Your task to perform on an android device: change notifications settings Image 0: 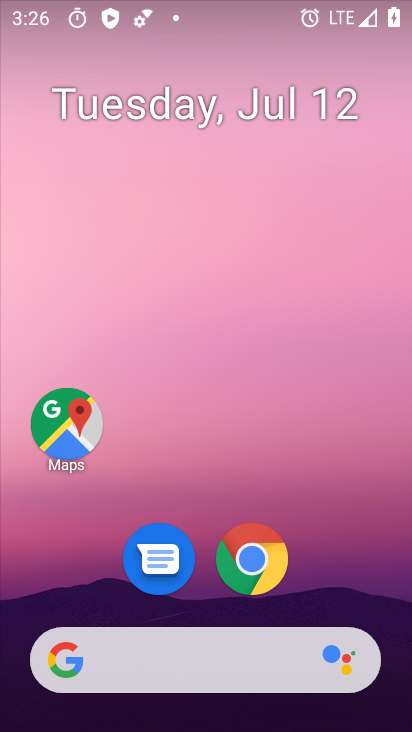
Step 0: drag from (375, 595) to (360, 235)
Your task to perform on an android device: change notifications settings Image 1: 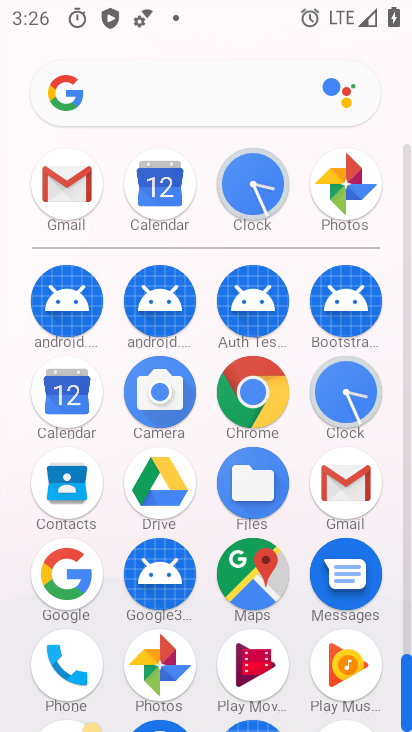
Step 1: drag from (389, 542) to (386, 330)
Your task to perform on an android device: change notifications settings Image 2: 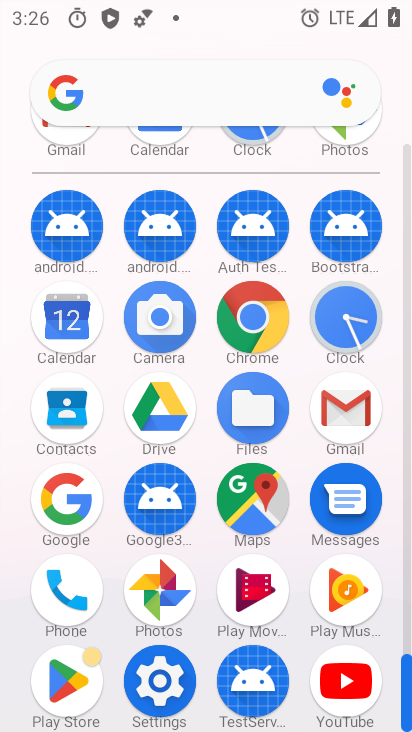
Step 2: click (167, 672)
Your task to perform on an android device: change notifications settings Image 3: 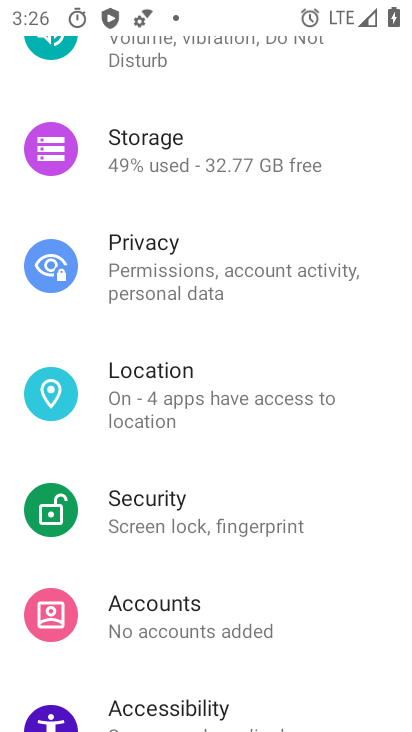
Step 3: drag from (380, 245) to (373, 349)
Your task to perform on an android device: change notifications settings Image 4: 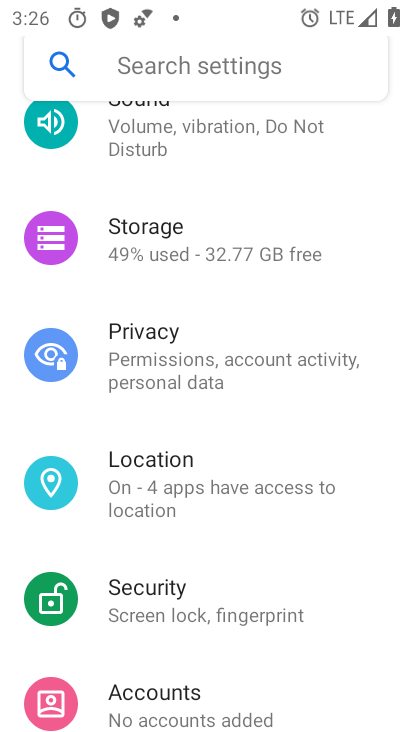
Step 4: drag from (362, 231) to (371, 345)
Your task to perform on an android device: change notifications settings Image 5: 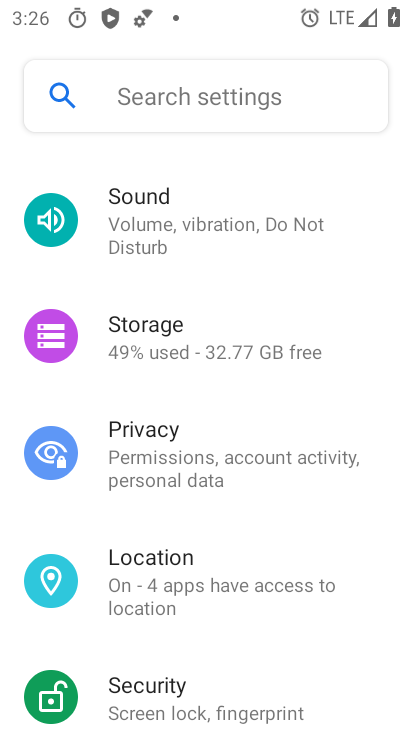
Step 5: drag from (369, 228) to (370, 334)
Your task to perform on an android device: change notifications settings Image 6: 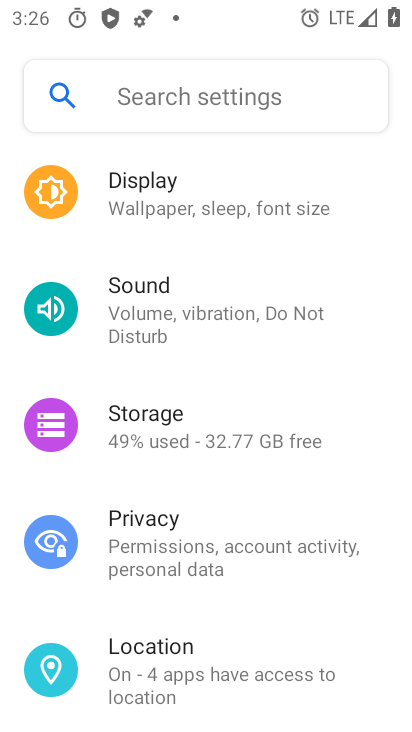
Step 6: drag from (367, 237) to (365, 339)
Your task to perform on an android device: change notifications settings Image 7: 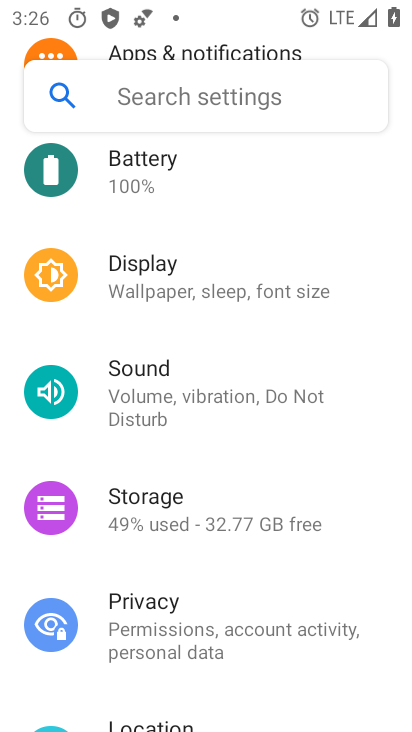
Step 7: drag from (365, 219) to (361, 328)
Your task to perform on an android device: change notifications settings Image 8: 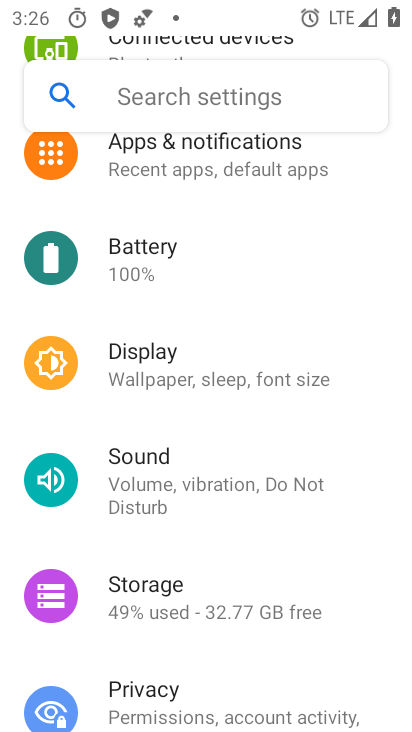
Step 8: drag from (361, 210) to (353, 346)
Your task to perform on an android device: change notifications settings Image 9: 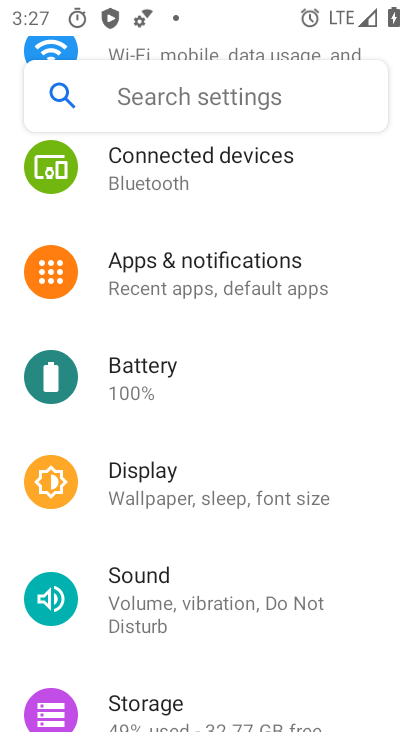
Step 9: drag from (365, 210) to (367, 353)
Your task to perform on an android device: change notifications settings Image 10: 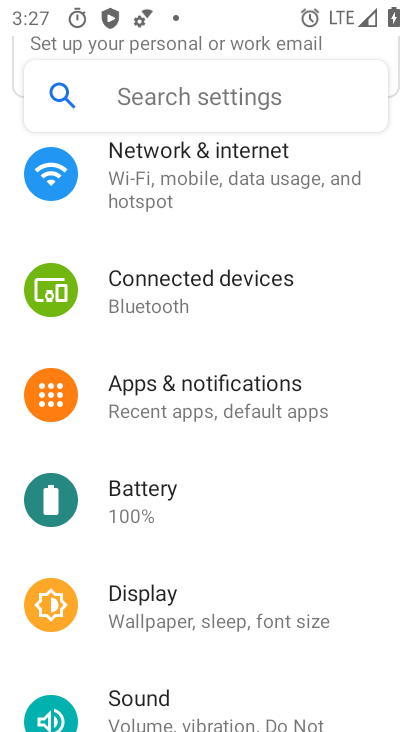
Step 10: click (279, 402)
Your task to perform on an android device: change notifications settings Image 11: 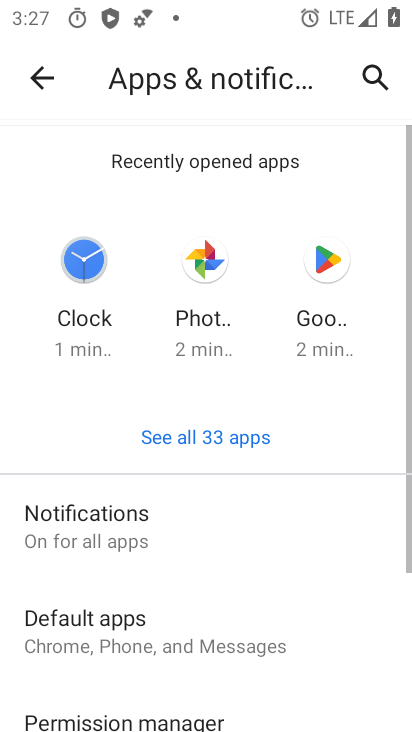
Step 11: drag from (256, 484) to (272, 331)
Your task to perform on an android device: change notifications settings Image 12: 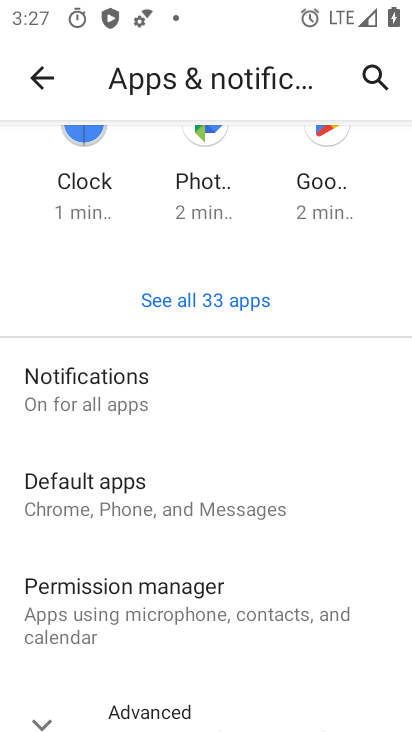
Step 12: click (145, 402)
Your task to perform on an android device: change notifications settings Image 13: 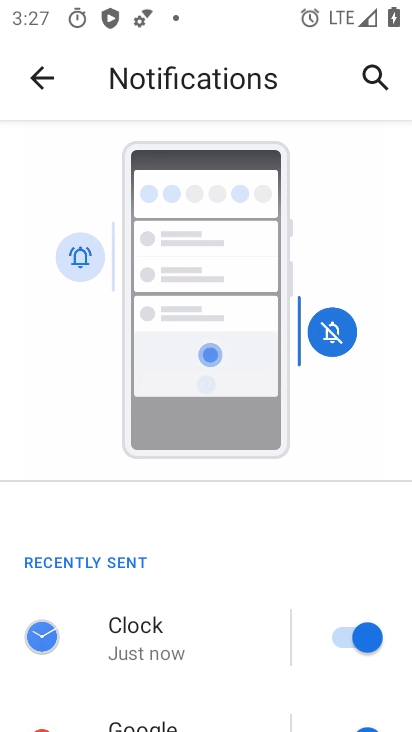
Step 13: drag from (222, 540) to (232, 403)
Your task to perform on an android device: change notifications settings Image 14: 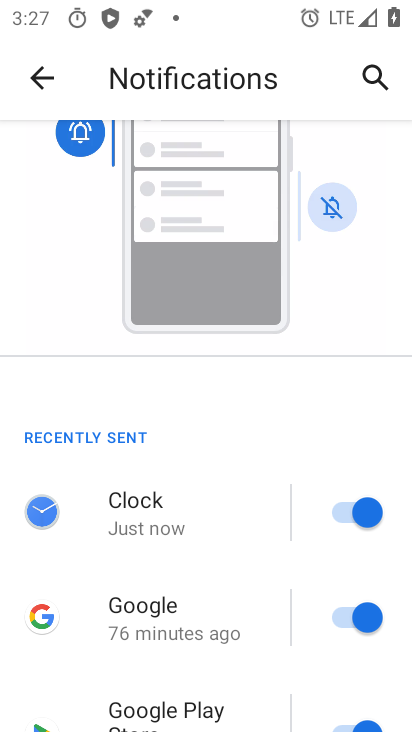
Step 14: drag from (237, 512) to (235, 358)
Your task to perform on an android device: change notifications settings Image 15: 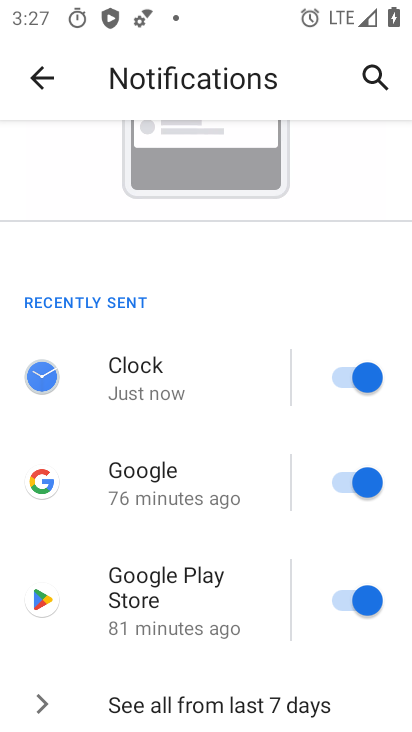
Step 15: drag from (243, 533) to (244, 368)
Your task to perform on an android device: change notifications settings Image 16: 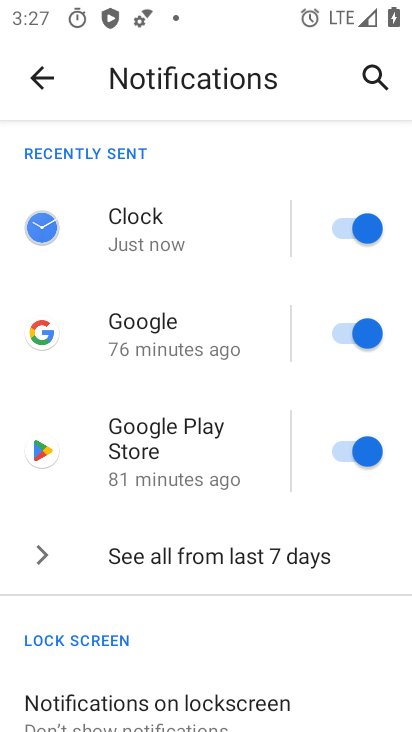
Step 16: drag from (253, 584) to (258, 308)
Your task to perform on an android device: change notifications settings Image 17: 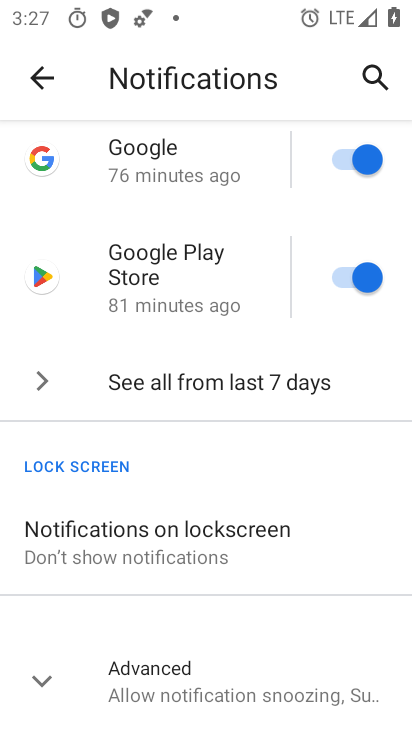
Step 17: drag from (304, 281) to (294, 517)
Your task to perform on an android device: change notifications settings Image 18: 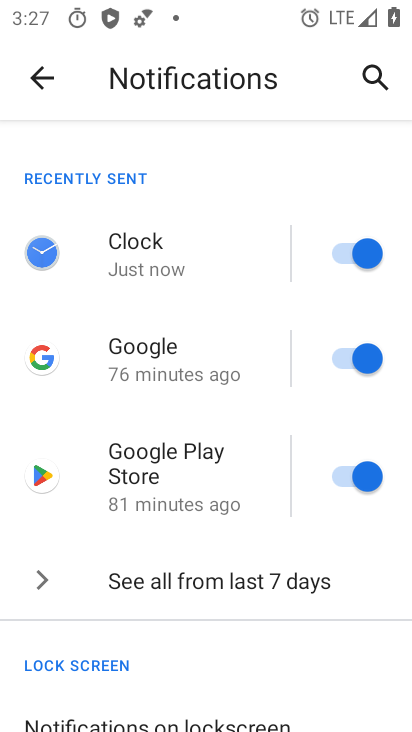
Step 18: click (342, 472)
Your task to perform on an android device: change notifications settings Image 19: 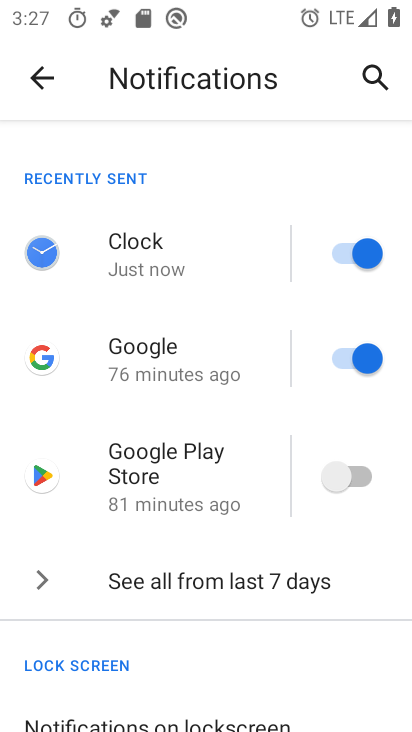
Step 19: click (358, 359)
Your task to perform on an android device: change notifications settings Image 20: 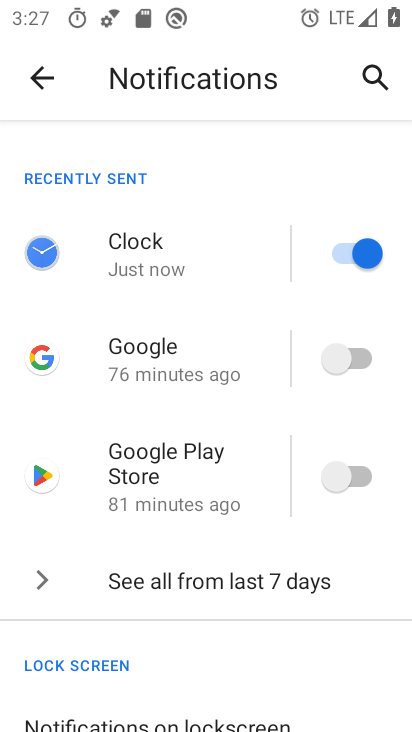
Step 20: click (365, 247)
Your task to perform on an android device: change notifications settings Image 21: 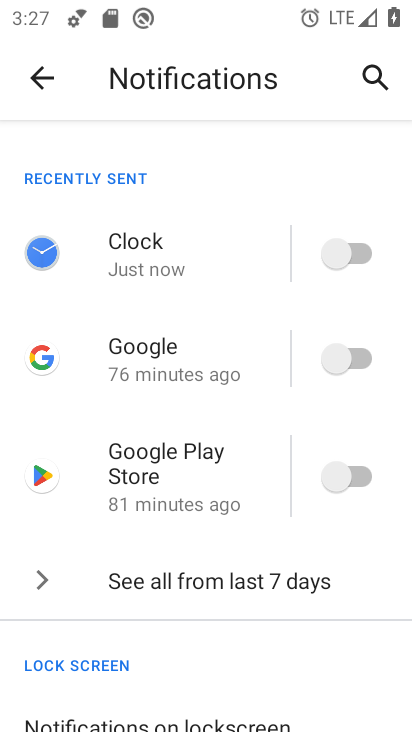
Step 21: task complete